Your task to perform on an android device: Go to internet settings Image 0: 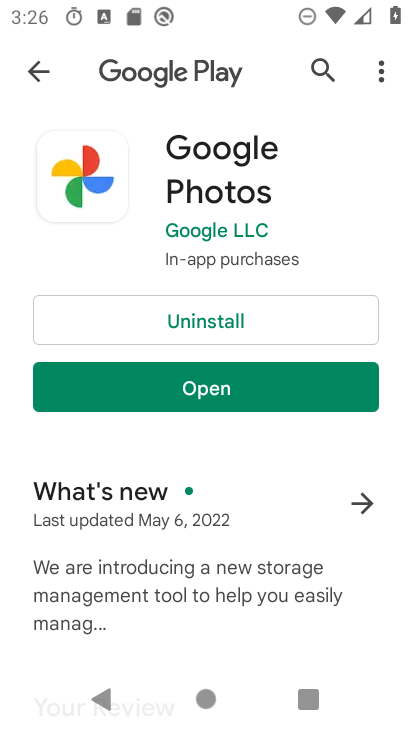
Step 0: press home button
Your task to perform on an android device: Go to internet settings Image 1: 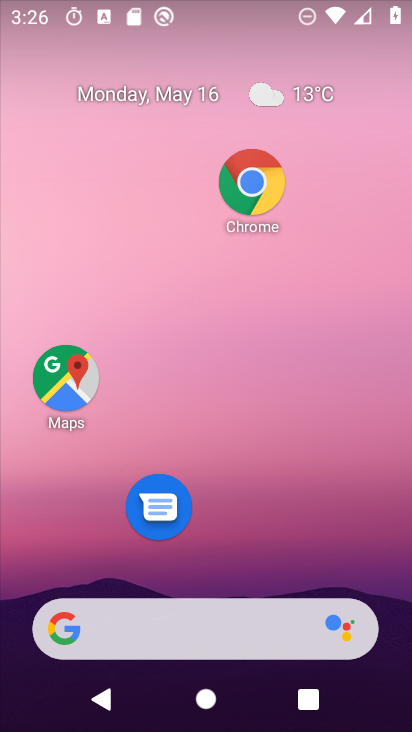
Step 1: drag from (286, 537) to (196, 119)
Your task to perform on an android device: Go to internet settings Image 2: 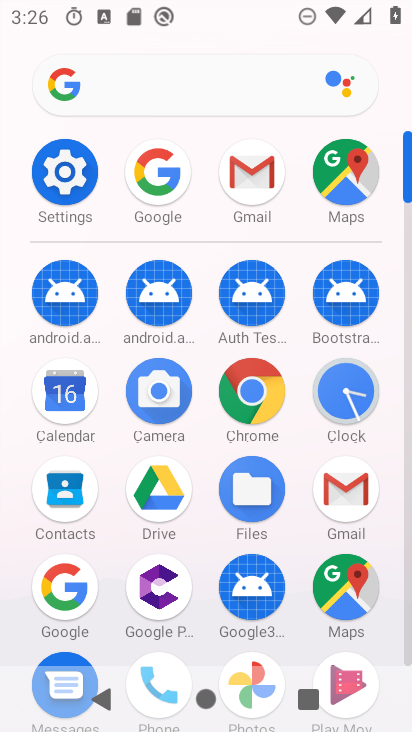
Step 2: click (69, 163)
Your task to perform on an android device: Go to internet settings Image 3: 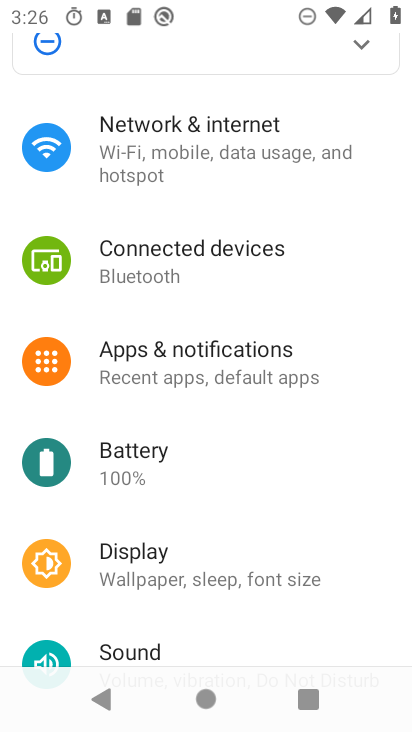
Step 3: click (212, 183)
Your task to perform on an android device: Go to internet settings Image 4: 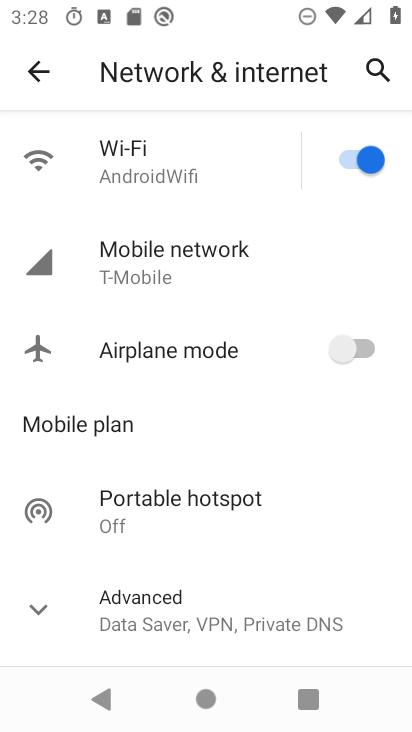
Step 4: click (247, 271)
Your task to perform on an android device: Go to internet settings Image 5: 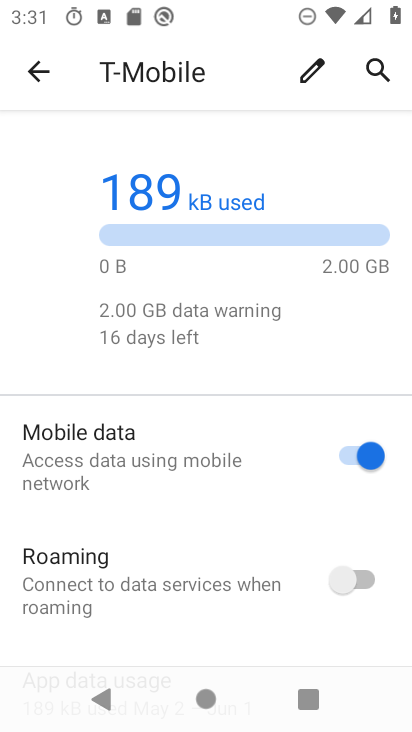
Step 5: task complete